Your task to perform on an android device: change notification settings in the gmail app Image 0: 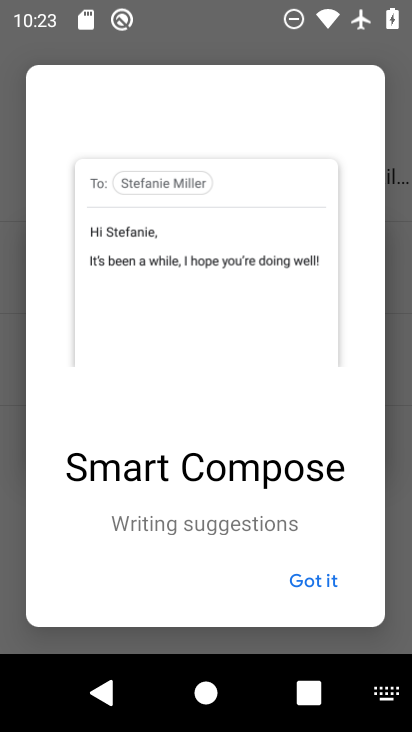
Step 0: press home button
Your task to perform on an android device: change notification settings in the gmail app Image 1: 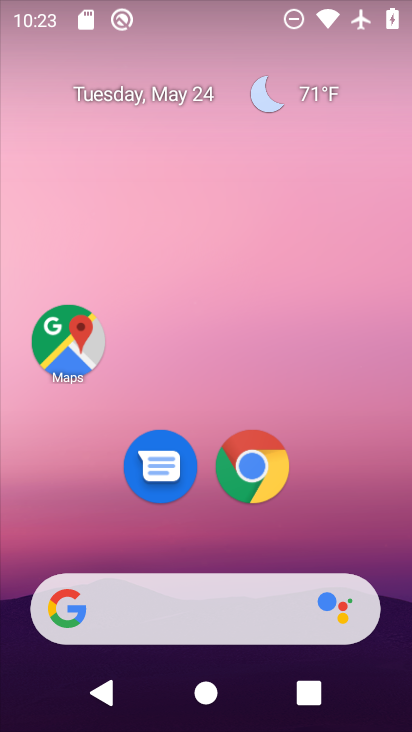
Step 1: drag from (196, 540) to (210, 148)
Your task to perform on an android device: change notification settings in the gmail app Image 2: 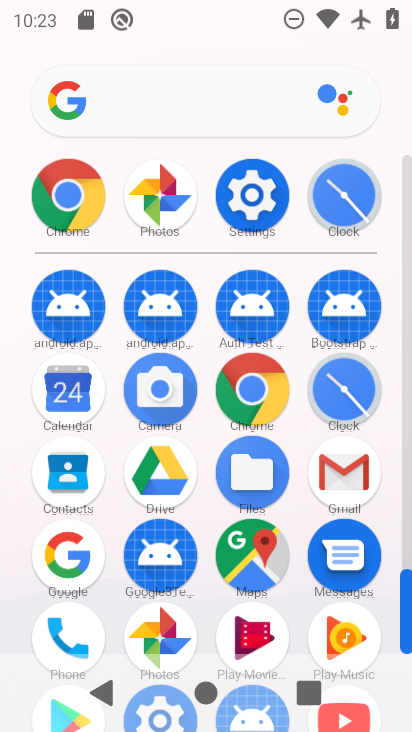
Step 2: click (256, 187)
Your task to perform on an android device: change notification settings in the gmail app Image 3: 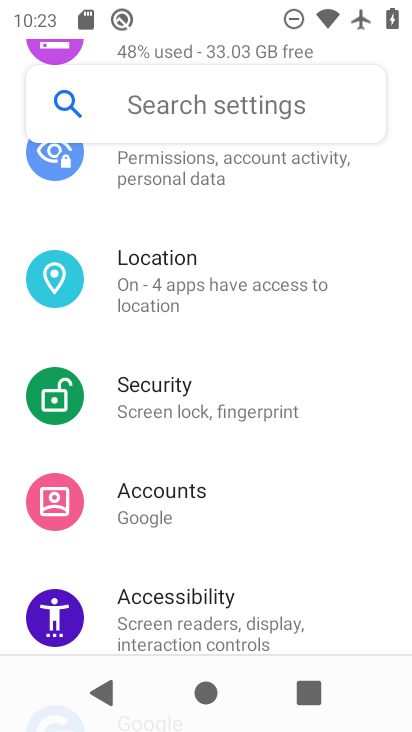
Step 3: press home button
Your task to perform on an android device: change notification settings in the gmail app Image 4: 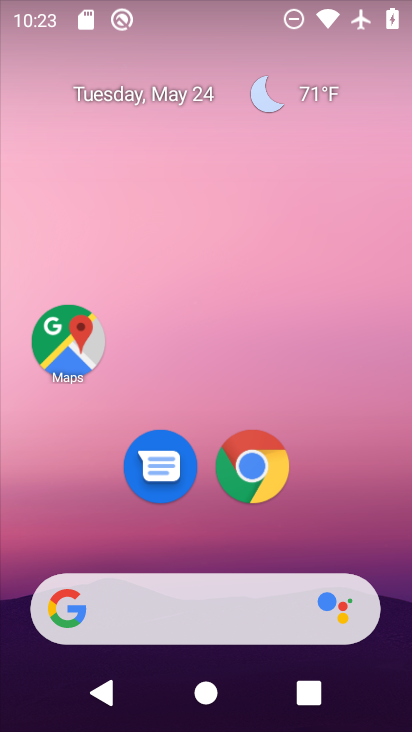
Step 4: drag from (253, 506) to (279, 81)
Your task to perform on an android device: change notification settings in the gmail app Image 5: 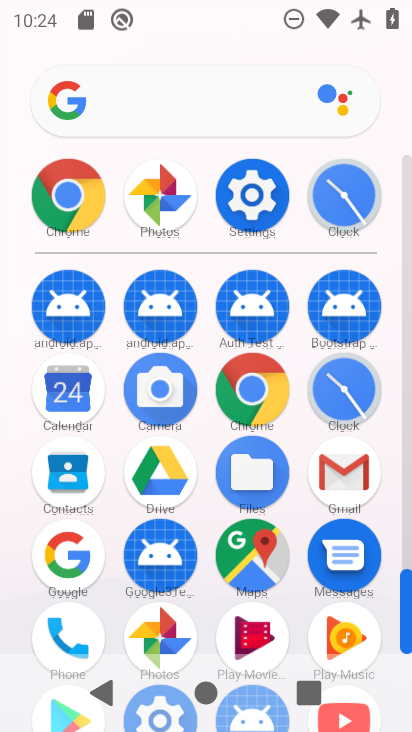
Step 5: click (344, 509)
Your task to perform on an android device: change notification settings in the gmail app Image 6: 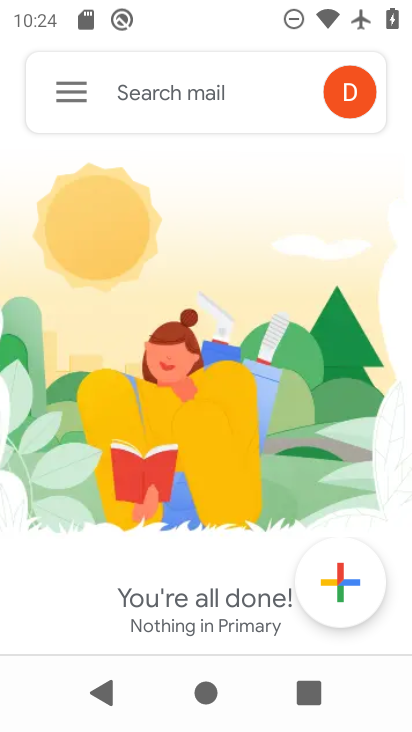
Step 6: click (73, 96)
Your task to perform on an android device: change notification settings in the gmail app Image 7: 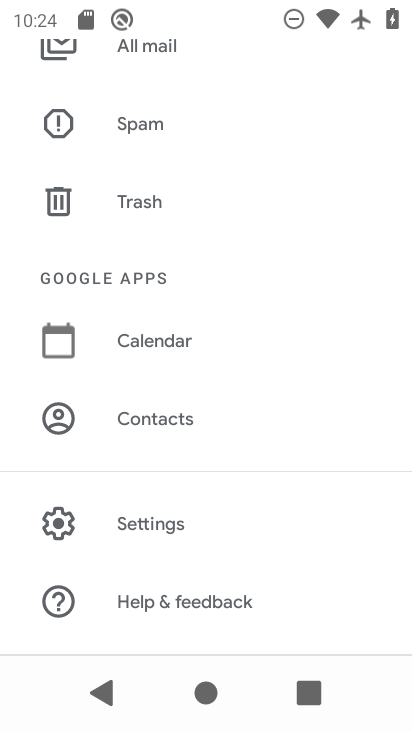
Step 7: click (175, 522)
Your task to perform on an android device: change notification settings in the gmail app Image 8: 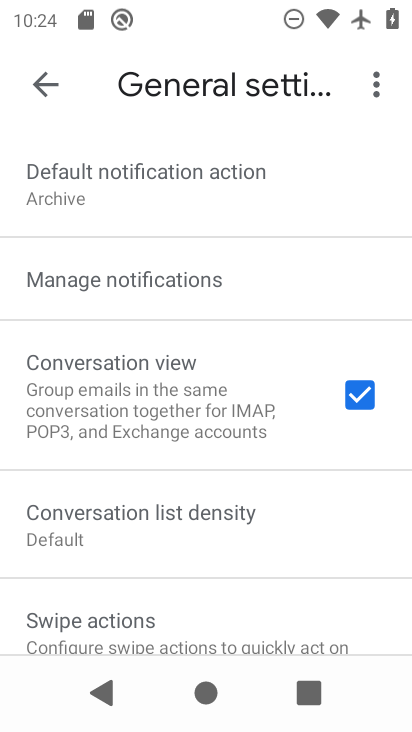
Step 8: click (242, 287)
Your task to perform on an android device: change notification settings in the gmail app Image 9: 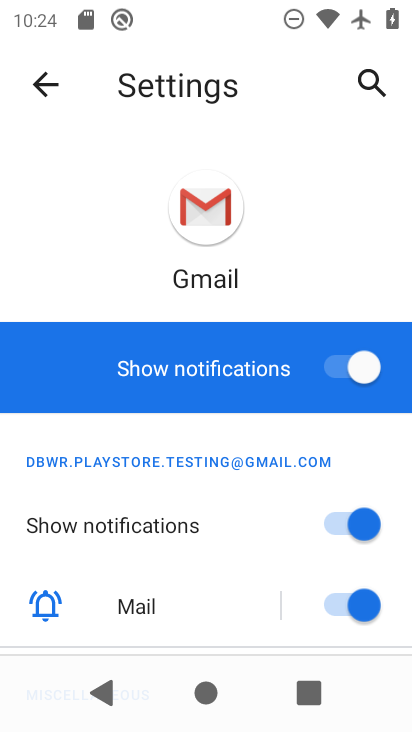
Step 9: click (333, 376)
Your task to perform on an android device: change notification settings in the gmail app Image 10: 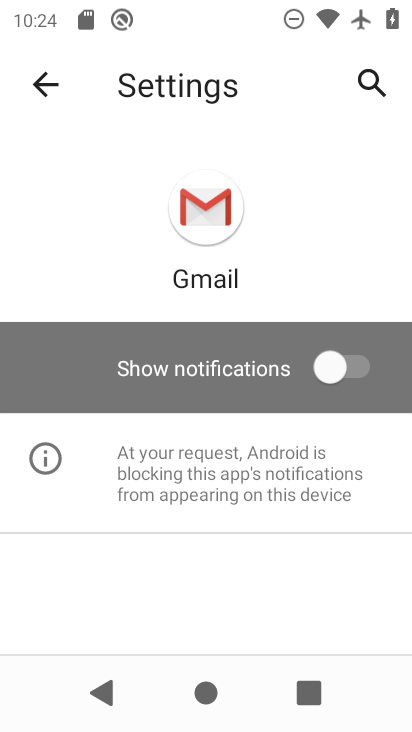
Step 10: task complete